Your task to perform on an android device: Do I have any events this weekend? Image 0: 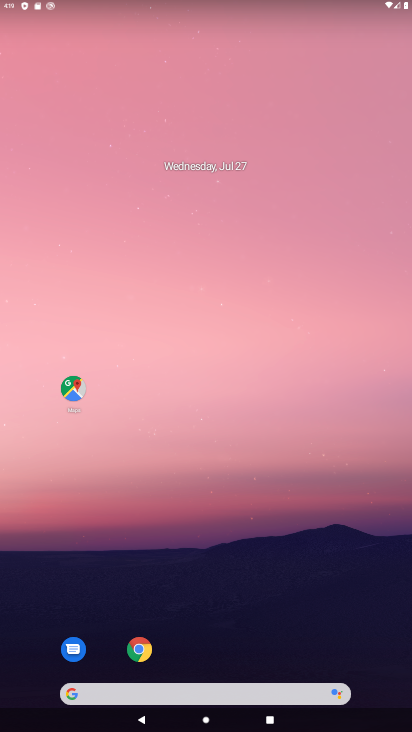
Step 0: drag from (181, 646) to (175, 119)
Your task to perform on an android device: Do I have any events this weekend? Image 1: 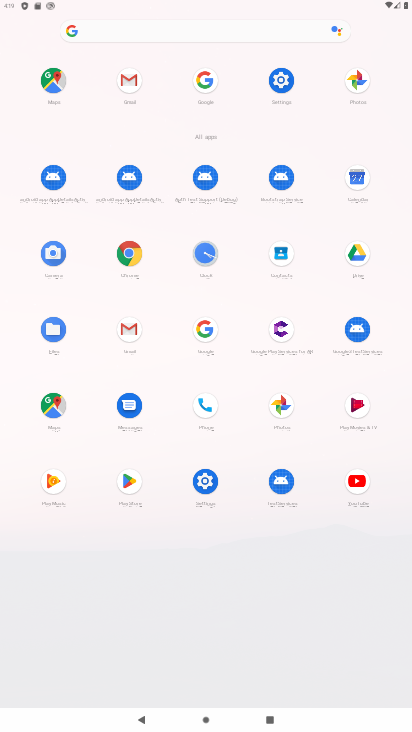
Step 1: click (358, 186)
Your task to perform on an android device: Do I have any events this weekend? Image 2: 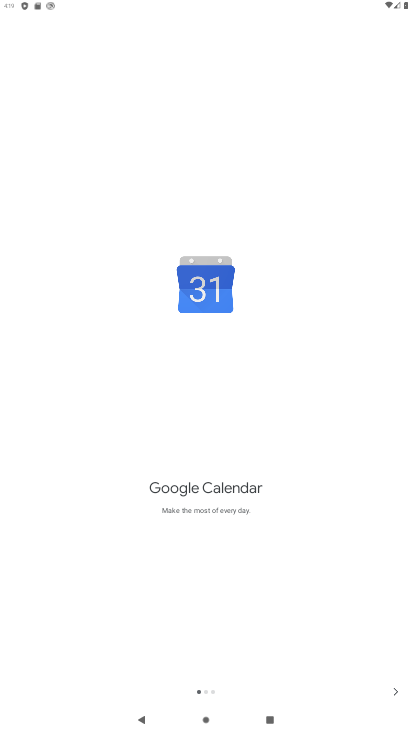
Step 2: click (393, 689)
Your task to perform on an android device: Do I have any events this weekend? Image 3: 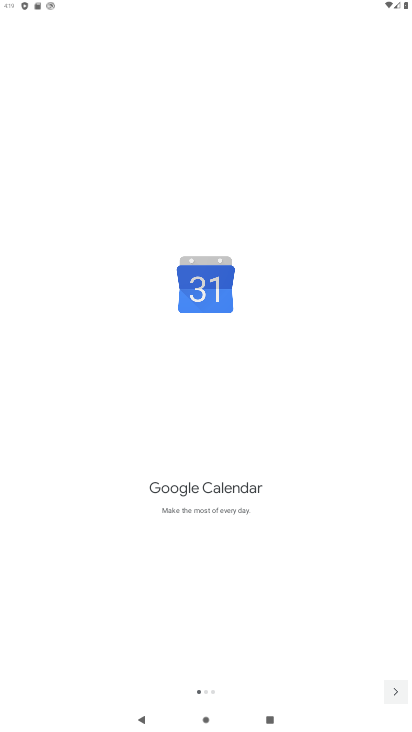
Step 3: click (393, 689)
Your task to perform on an android device: Do I have any events this weekend? Image 4: 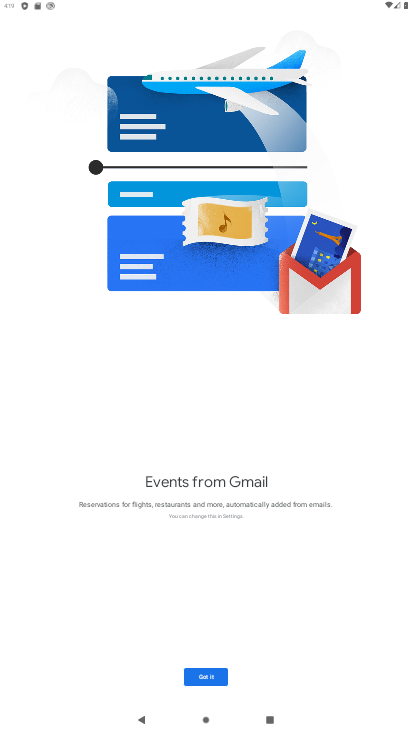
Step 4: click (206, 666)
Your task to perform on an android device: Do I have any events this weekend? Image 5: 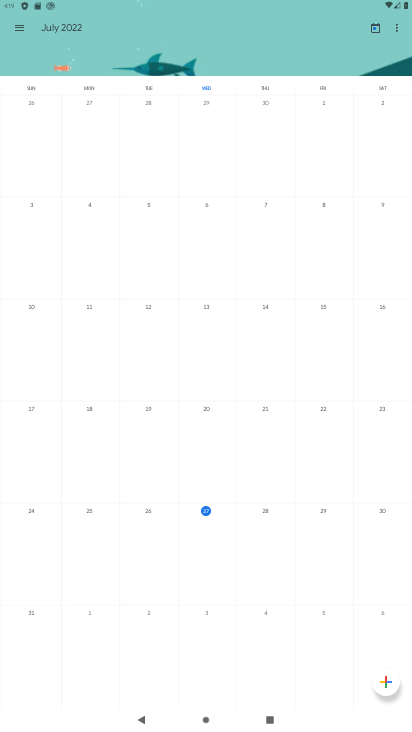
Step 5: click (58, 34)
Your task to perform on an android device: Do I have any events this weekend? Image 6: 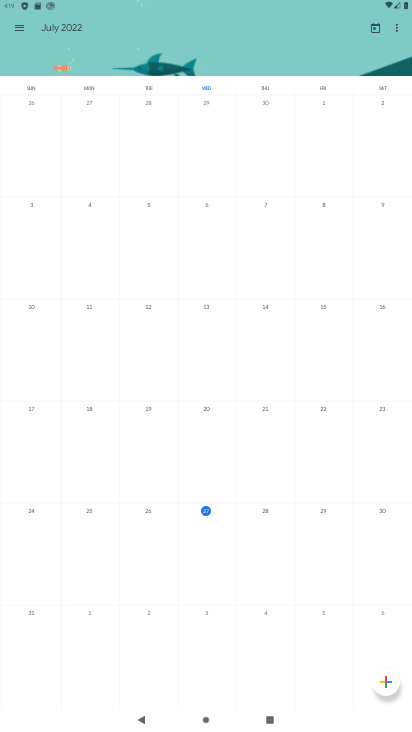
Step 6: click (14, 34)
Your task to perform on an android device: Do I have any events this weekend? Image 7: 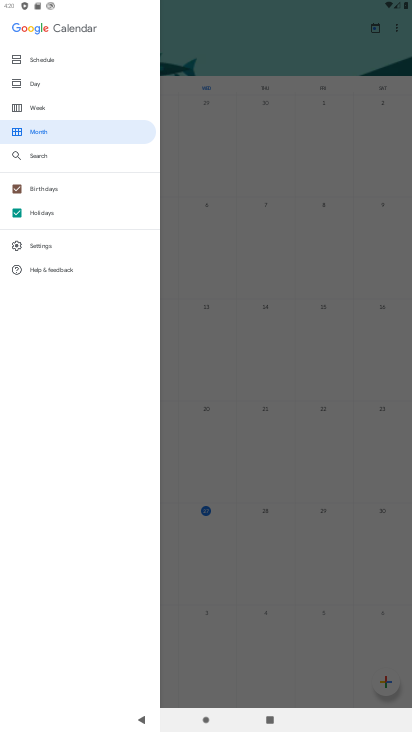
Step 7: click (33, 109)
Your task to perform on an android device: Do I have any events this weekend? Image 8: 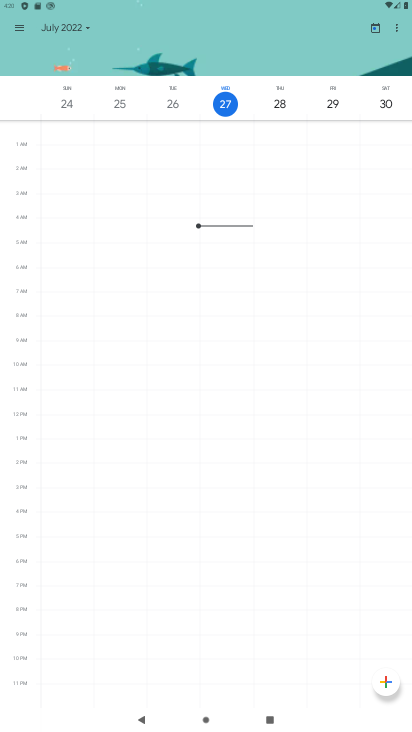
Step 8: task complete